Your task to perform on an android device: turn off location history Image 0: 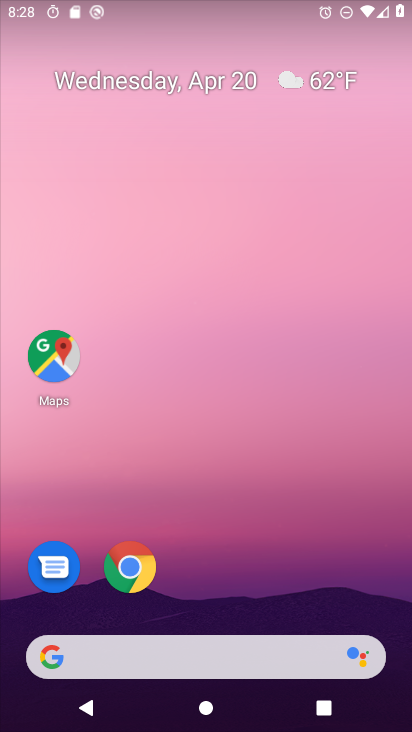
Step 0: click (56, 361)
Your task to perform on an android device: turn off location history Image 1: 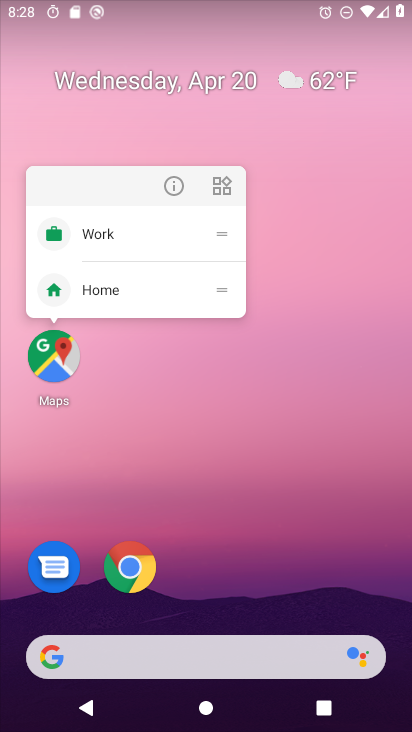
Step 1: click (57, 355)
Your task to perform on an android device: turn off location history Image 2: 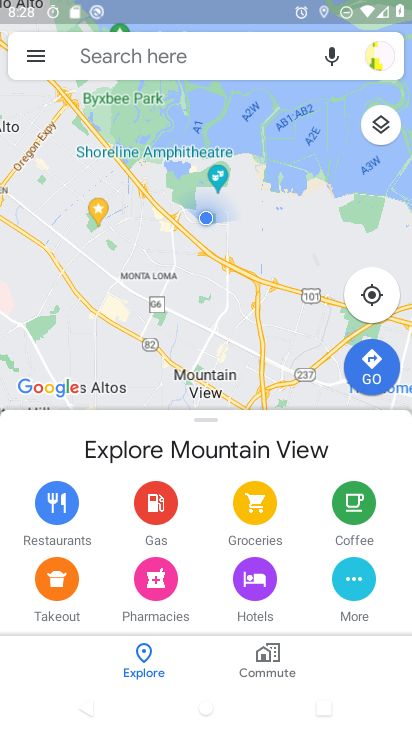
Step 2: click (37, 58)
Your task to perform on an android device: turn off location history Image 3: 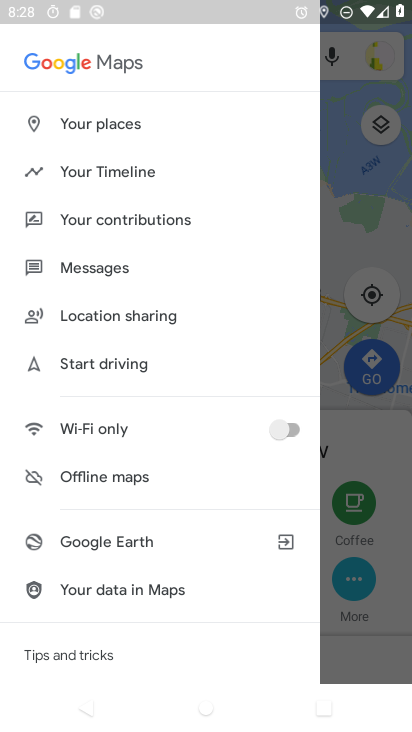
Step 3: click (139, 177)
Your task to perform on an android device: turn off location history Image 4: 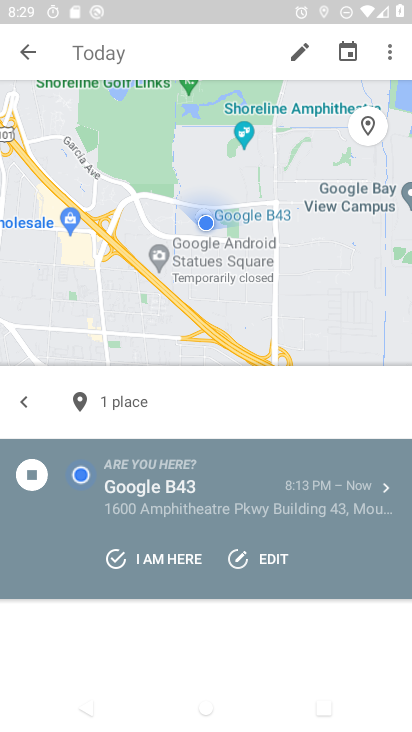
Step 4: click (387, 53)
Your task to perform on an android device: turn off location history Image 5: 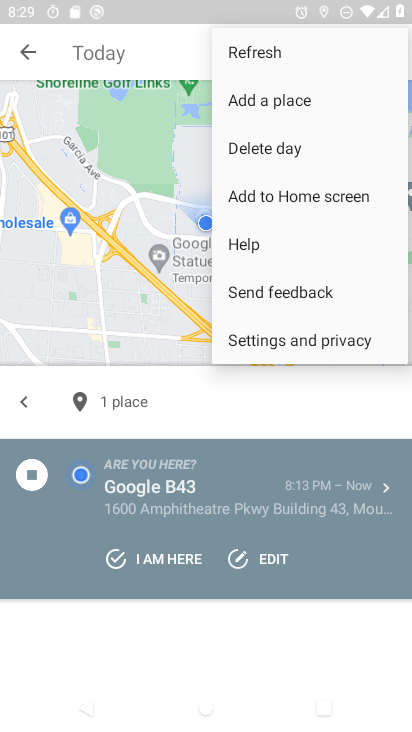
Step 5: click (290, 344)
Your task to perform on an android device: turn off location history Image 6: 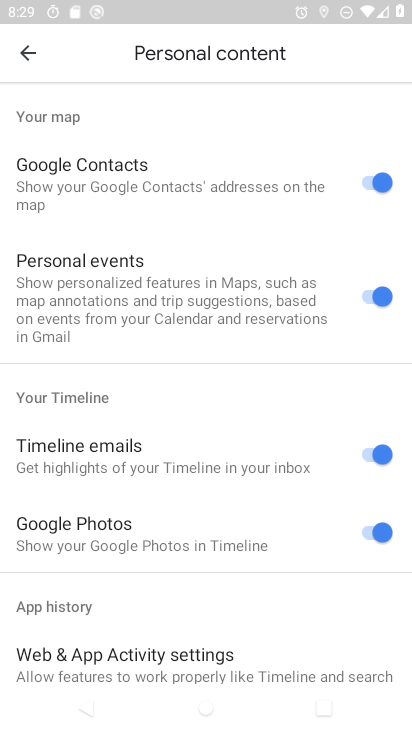
Step 6: drag from (162, 612) to (201, 8)
Your task to perform on an android device: turn off location history Image 7: 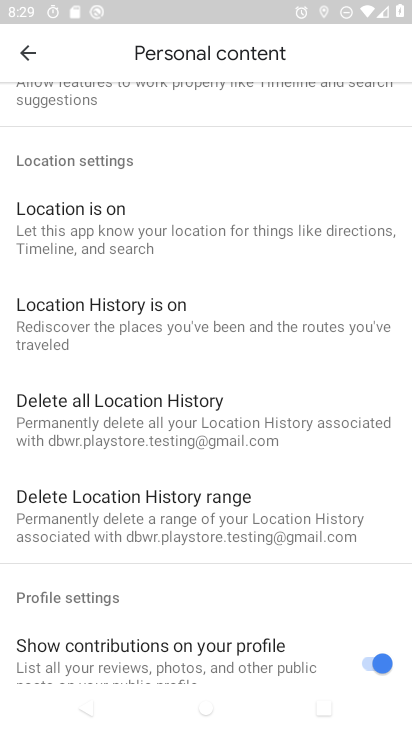
Step 7: click (83, 332)
Your task to perform on an android device: turn off location history Image 8: 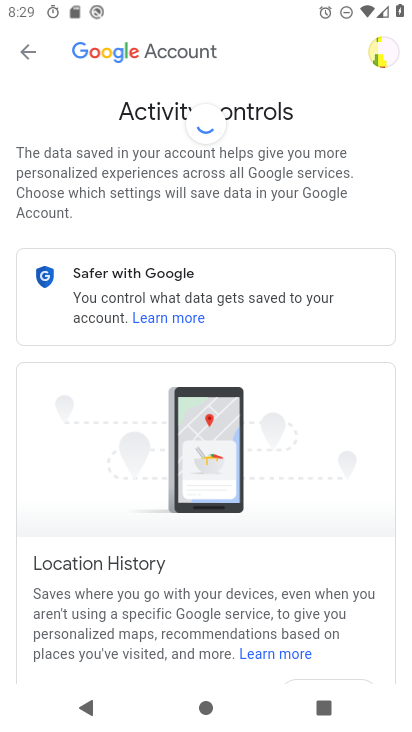
Step 8: drag from (277, 471) to (258, 137)
Your task to perform on an android device: turn off location history Image 9: 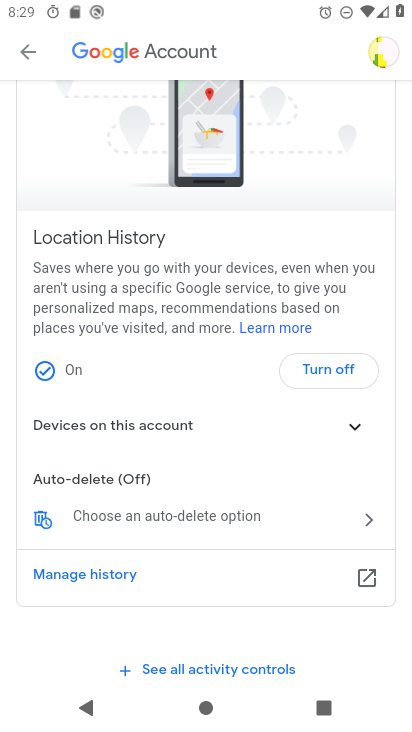
Step 9: click (320, 359)
Your task to perform on an android device: turn off location history Image 10: 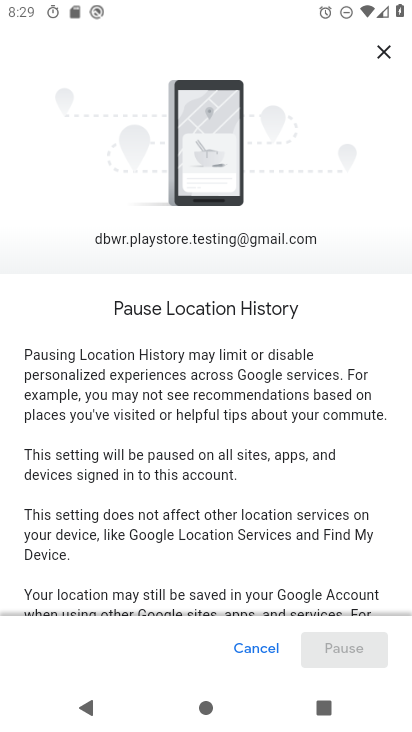
Step 10: drag from (182, 522) to (225, 171)
Your task to perform on an android device: turn off location history Image 11: 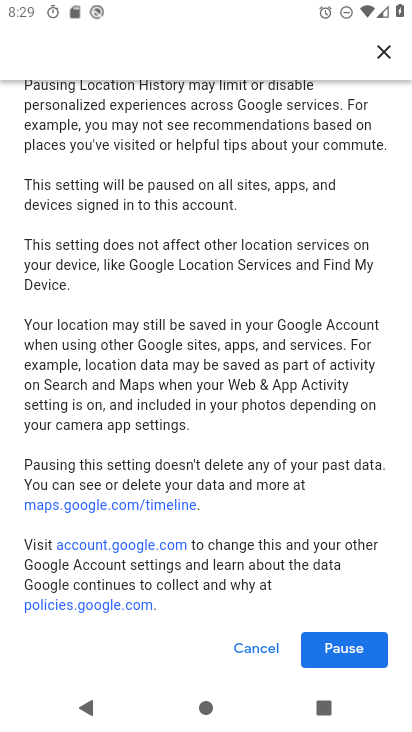
Step 11: click (331, 642)
Your task to perform on an android device: turn off location history Image 12: 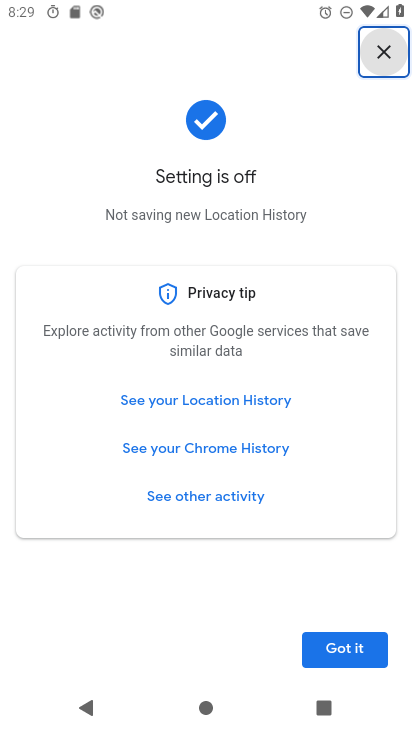
Step 12: click (331, 642)
Your task to perform on an android device: turn off location history Image 13: 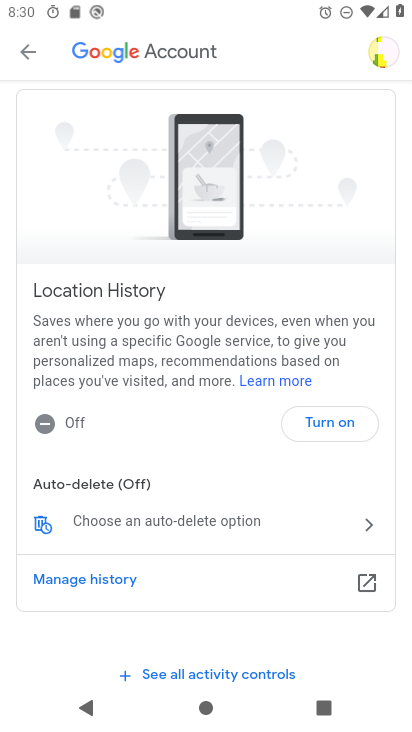
Step 13: task complete